Your task to perform on an android device: When is my next meeting? Image 0: 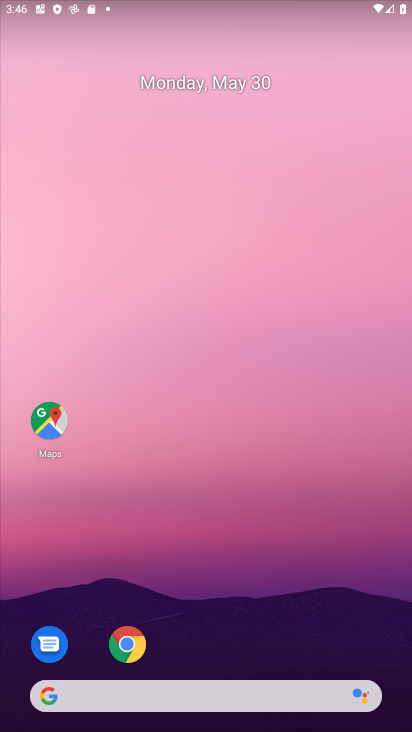
Step 0: drag from (243, 674) to (372, 5)
Your task to perform on an android device: When is my next meeting? Image 1: 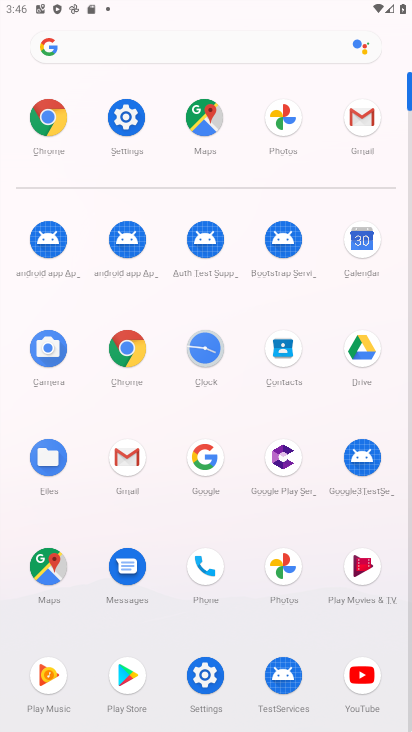
Step 1: click (366, 266)
Your task to perform on an android device: When is my next meeting? Image 2: 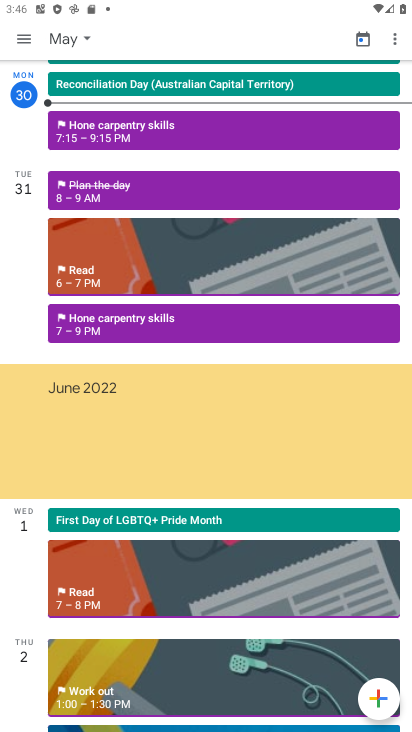
Step 2: task complete